Your task to perform on an android device: check out phone information Image 0: 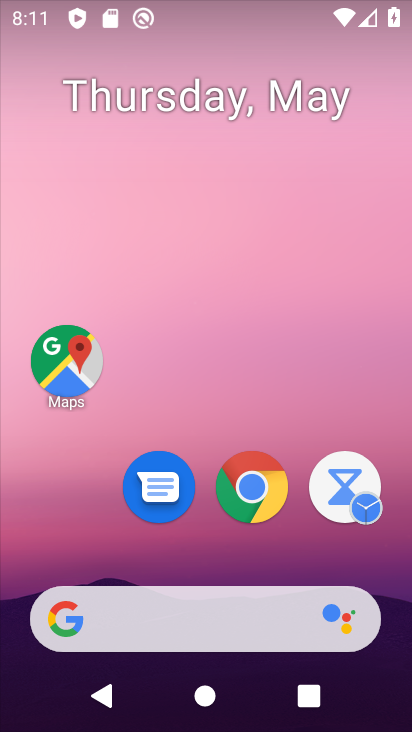
Step 0: drag from (393, 574) to (394, 189)
Your task to perform on an android device: check out phone information Image 1: 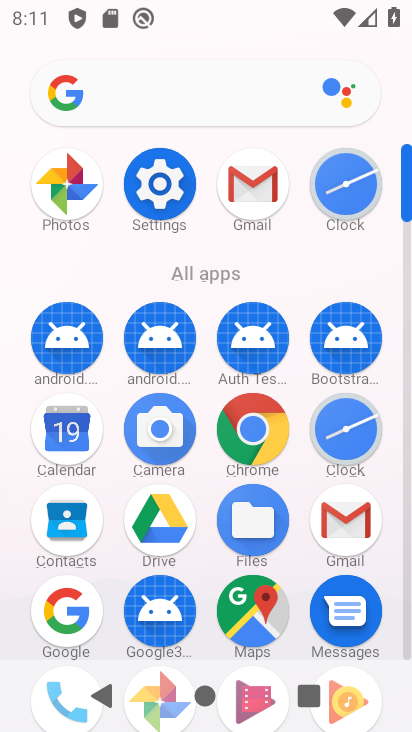
Step 1: drag from (392, 569) to (388, 310)
Your task to perform on an android device: check out phone information Image 2: 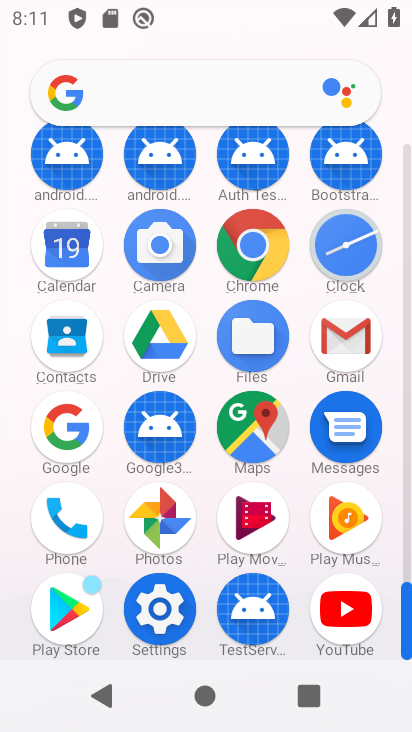
Step 2: click (65, 525)
Your task to perform on an android device: check out phone information Image 3: 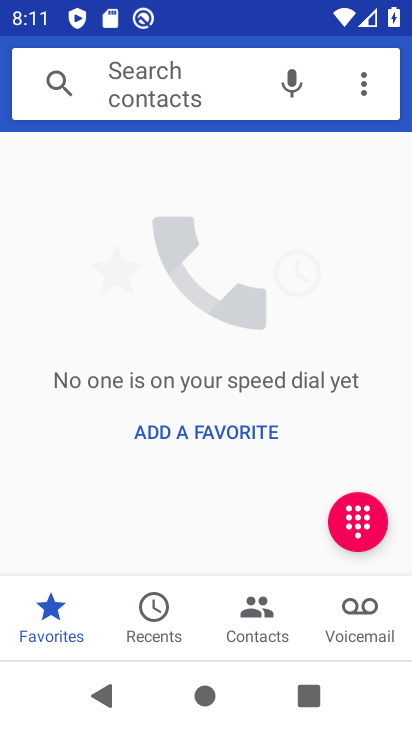
Step 3: click (173, 624)
Your task to perform on an android device: check out phone information Image 4: 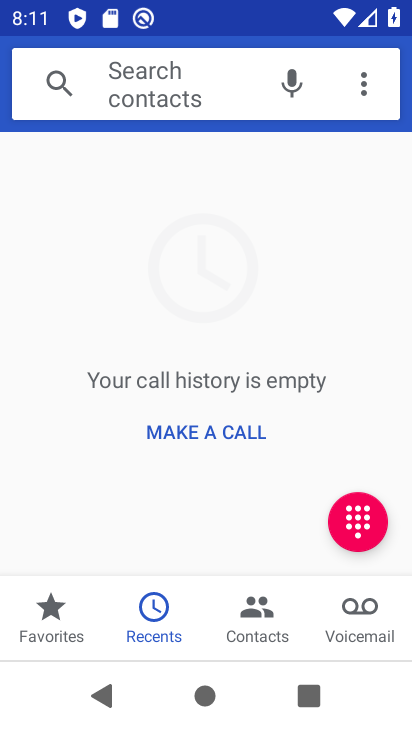
Step 4: task complete